Your task to perform on an android device: change the upload size in google photos Image 0: 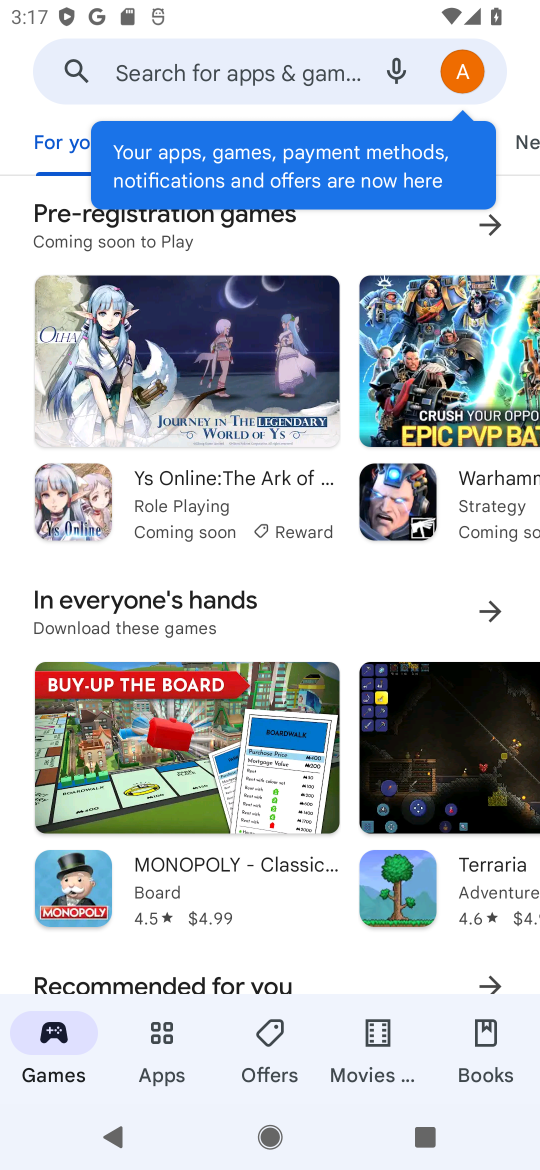
Step 0: press home button
Your task to perform on an android device: change the upload size in google photos Image 1: 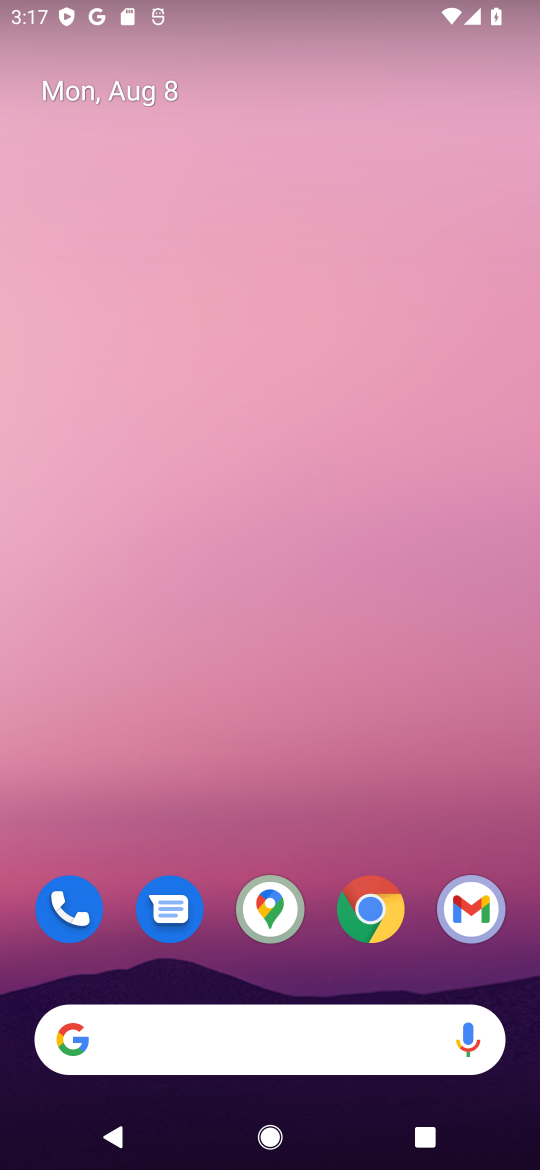
Step 1: drag from (261, 993) to (261, 633)
Your task to perform on an android device: change the upload size in google photos Image 2: 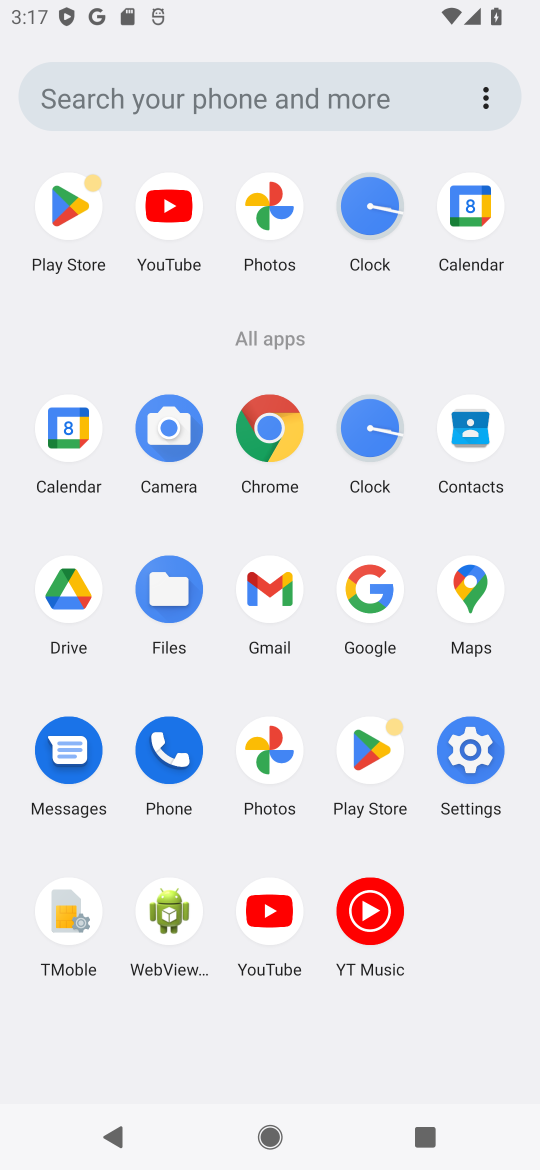
Step 2: click (263, 745)
Your task to perform on an android device: change the upload size in google photos Image 3: 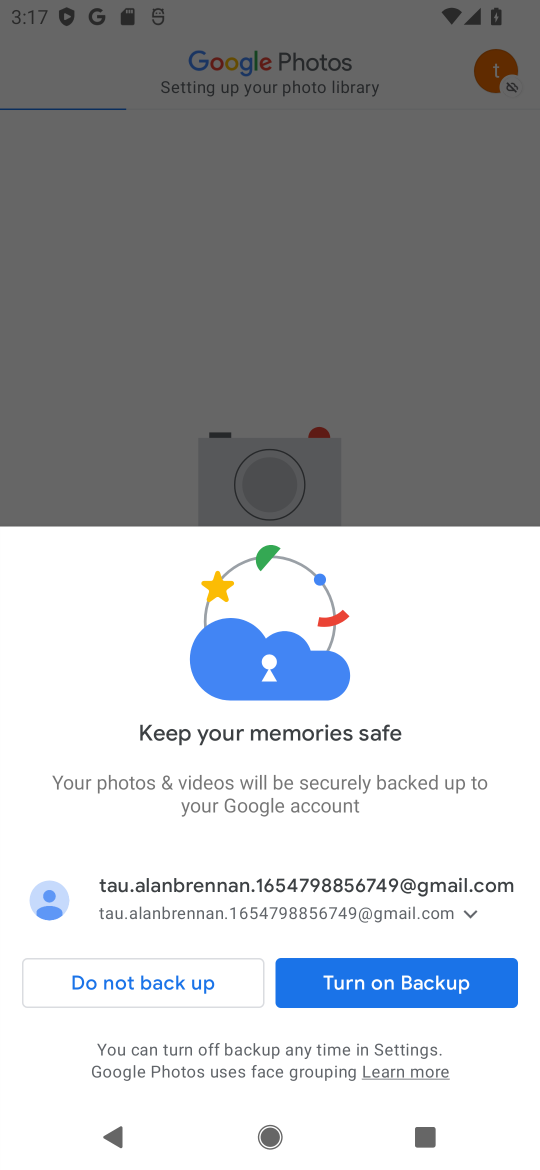
Step 3: click (394, 985)
Your task to perform on an android device: change the upload size in google photos Image 4: 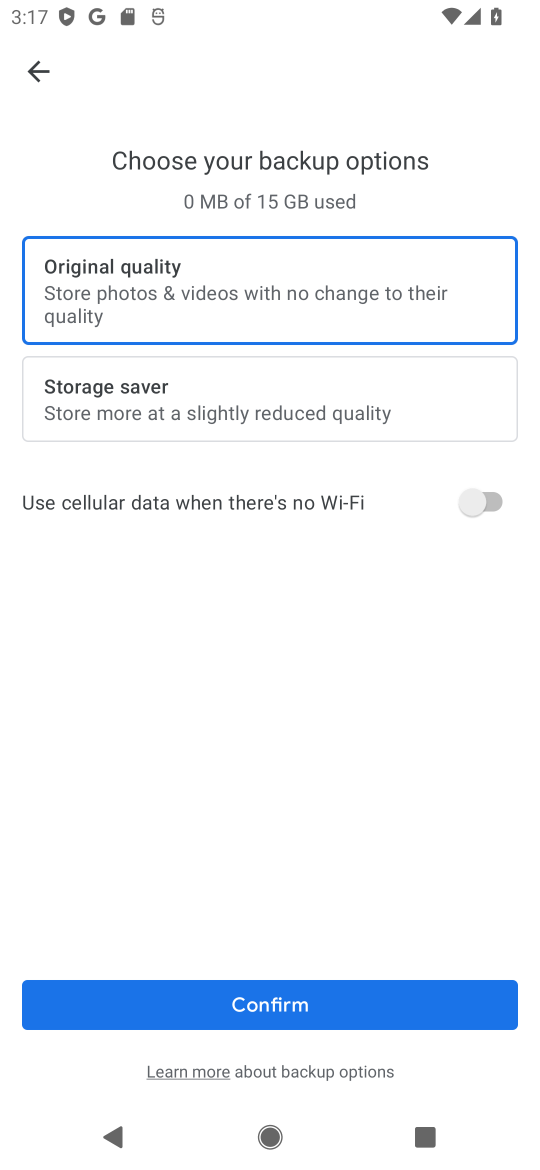
Step 4: click (261, 1003)
Your task to perform on an android device: change the upload size in google photos Image 5: 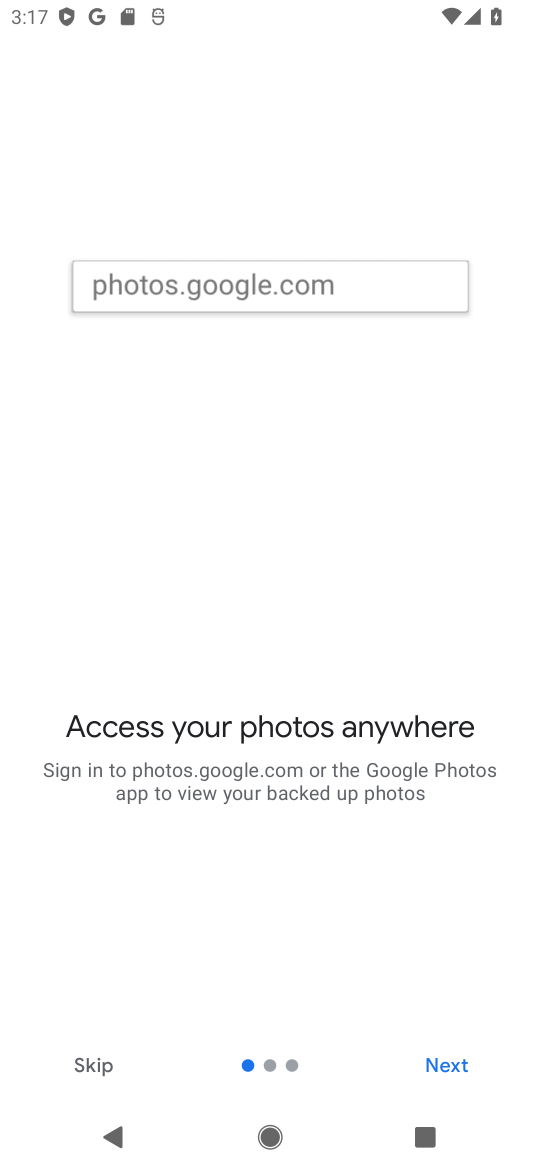
Step 5: click (436, 1066)
Your task to perform on an android device: change the upload size in google photos Image 6: 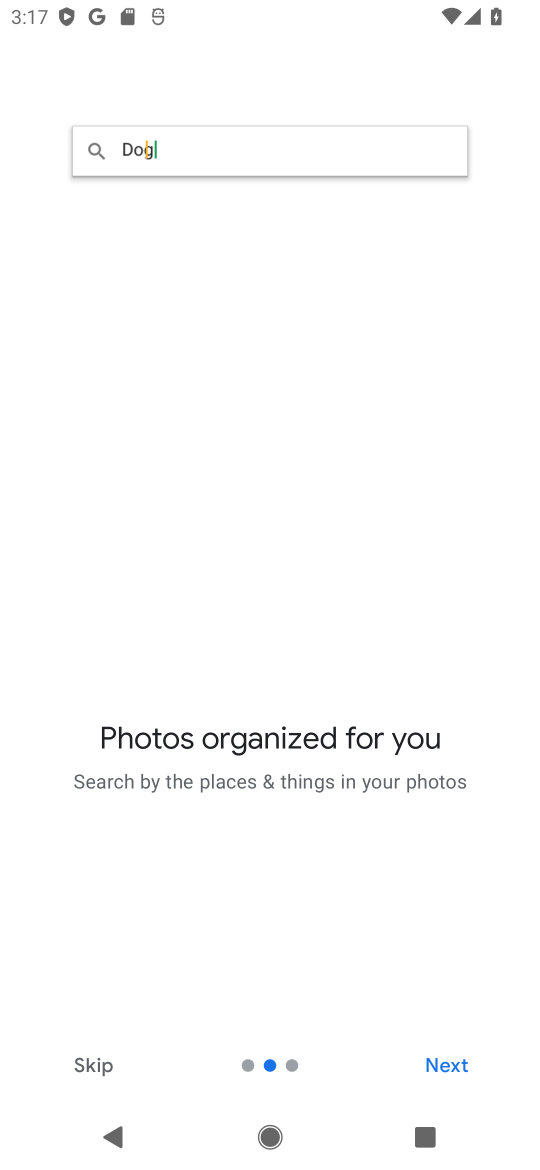
Step 6: click (436, 1066)
Your task to perform on an android device: change the upload size in google photos Image 7: 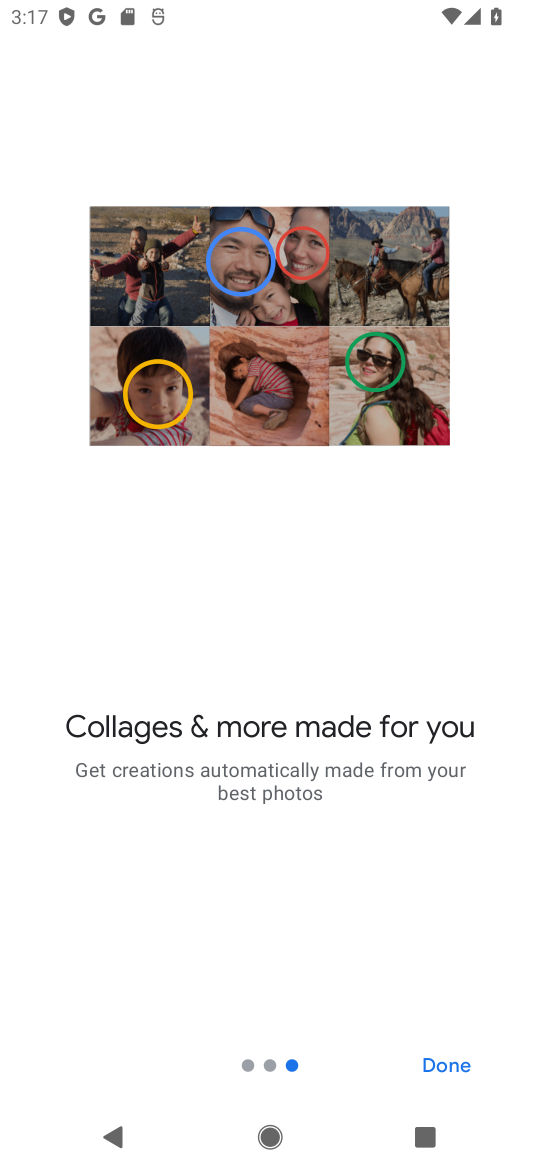
Step 7: click (436, 1066)
Your task to perform on an android device: change the upload size in google photos Image 8: 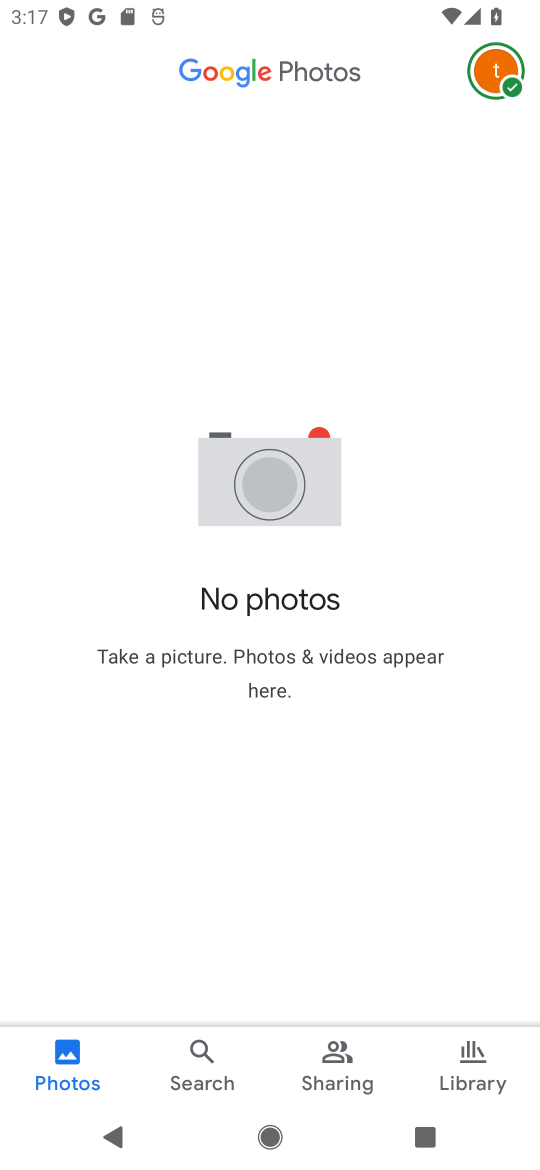
Step 8: click (471, 70)
Your task to perform on an android device: change the upload size in google photos Image 9: 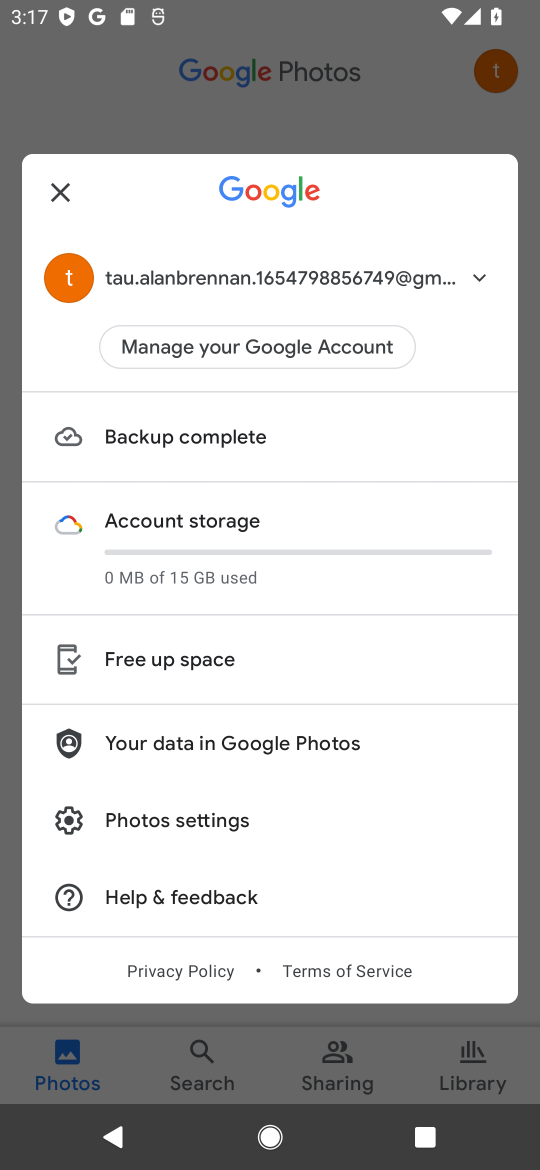
Step 9: click (166, 827)
Your task to perform on an android device: change the upload size in google photos Image 10: 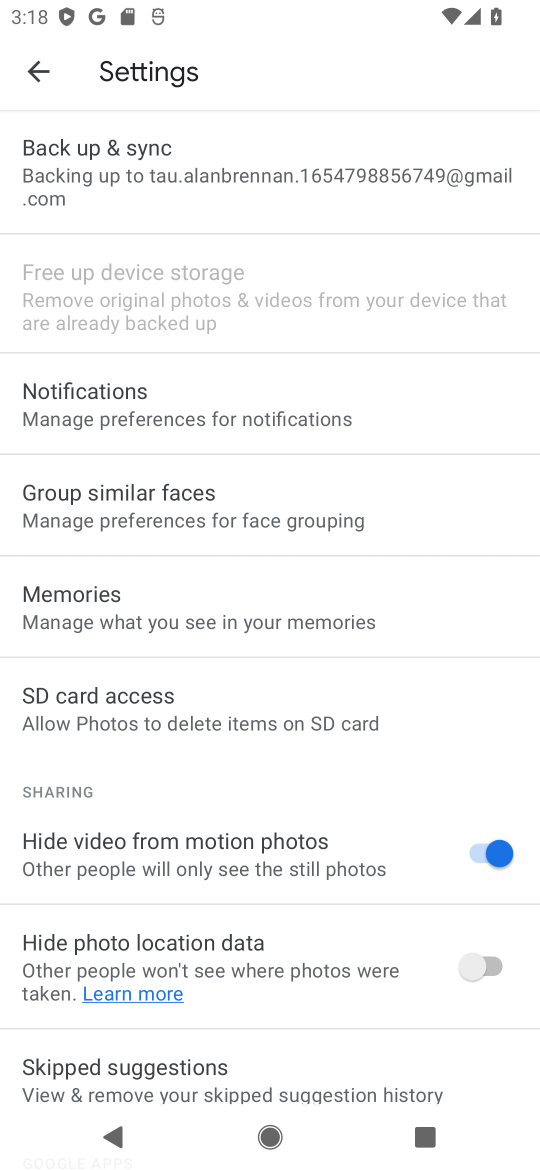
Step 10: click (53, 145)
Your task to perform on an android device: change the upload size in google photos Image 11: 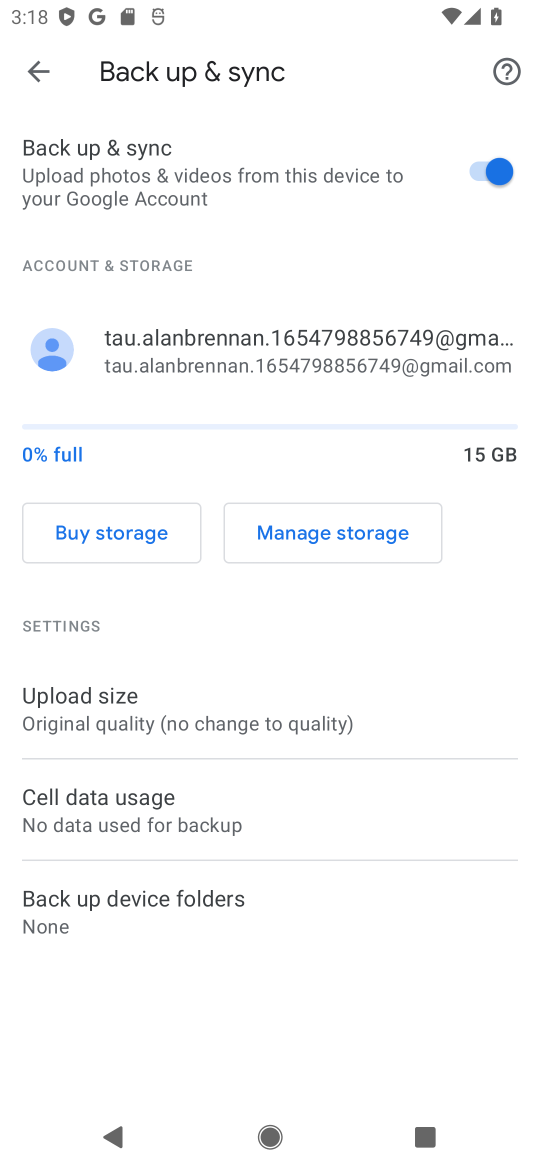
Step 11: click (77, 718)
Your task to perform on an android device: change the upload size in google photos Image 12: 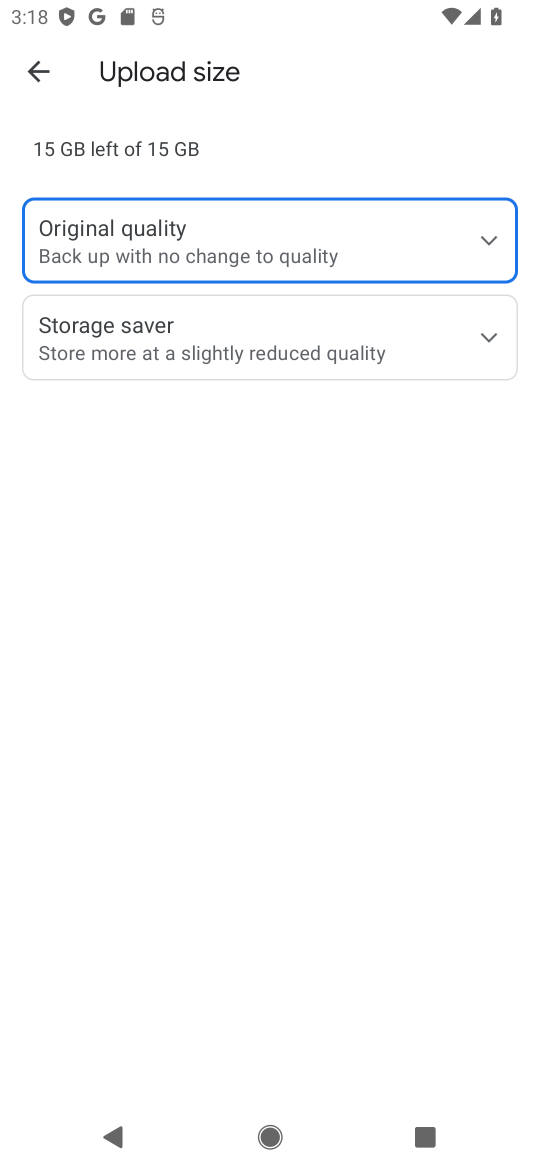
Step 12: click (128, 325)
Your task to perform on an android device: change the upload size in google photos Image 13: 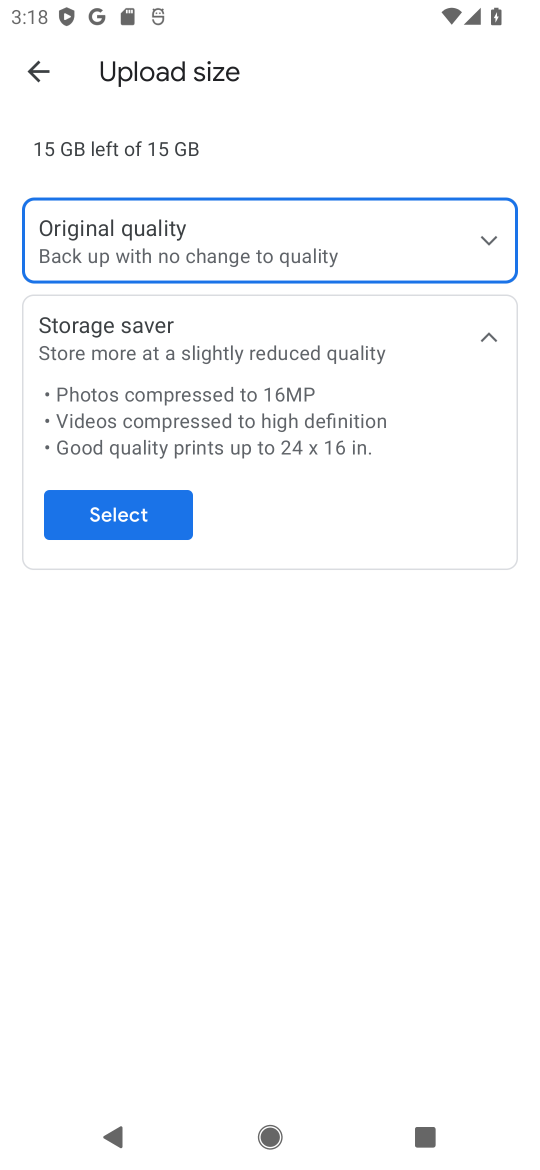
Step 13: click (154, 524)
Your task to perform on an android device: change the upload size in google photos Image 14: 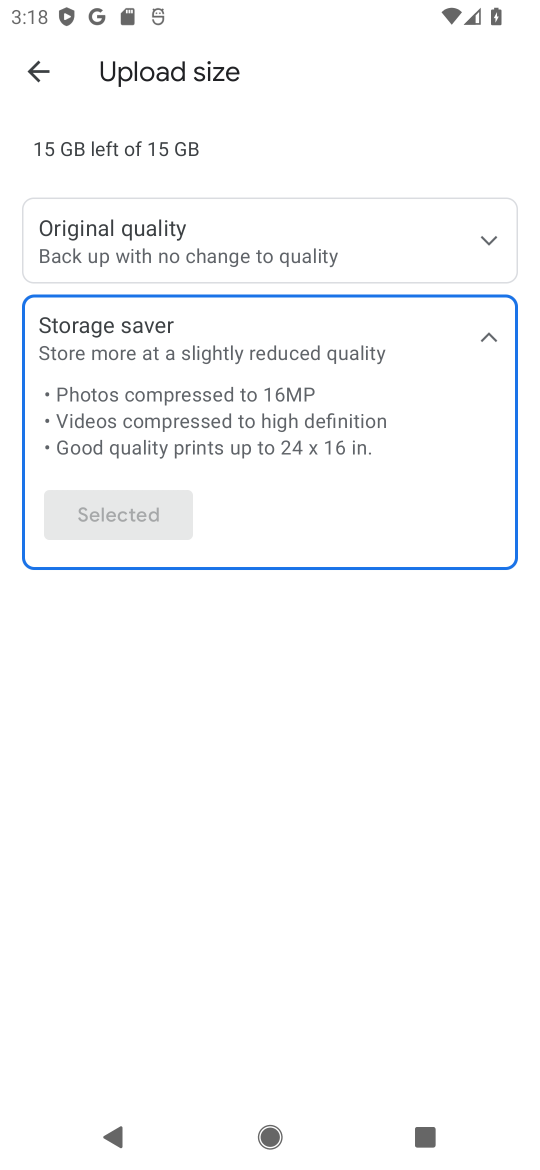
Step 14: task complete